Your task to perform on an android device: Open Yahoo.com Image 0: 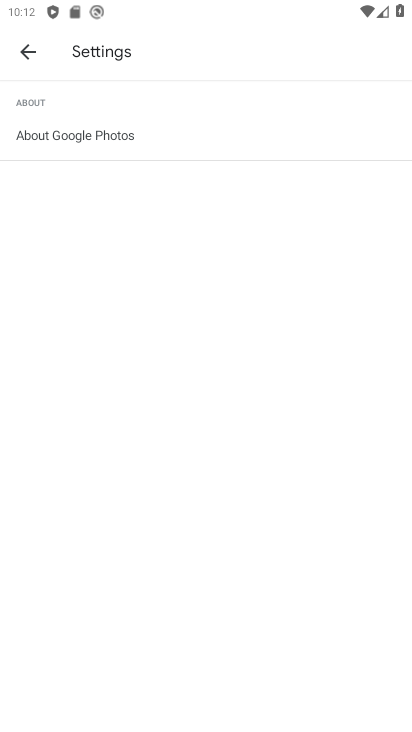
Step 0: press home button
Your task to perform on an android device: Open Yahoo.com Image 1: 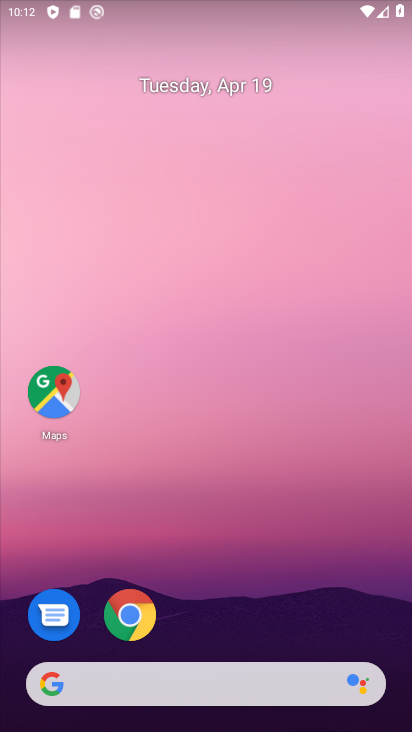
Step 1: click (124, 613)
Your task to perform on an android device: Open Yahoo.com Image 2: 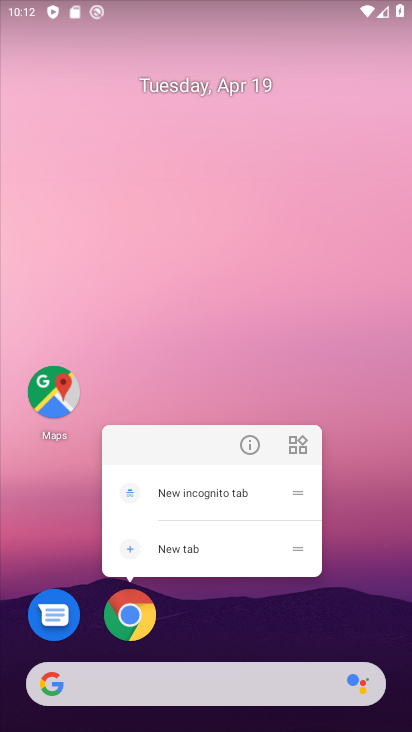
Step 2: click (134, 613)
Your task to perform on an android device: Open Yahoo.com Image 3: 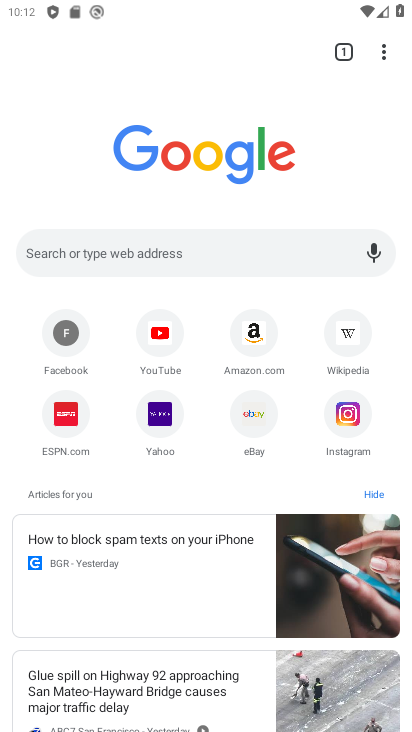
Step 3: click (158, 416)
Your task to perform on an android device: Open Yahoo.com Image 4: 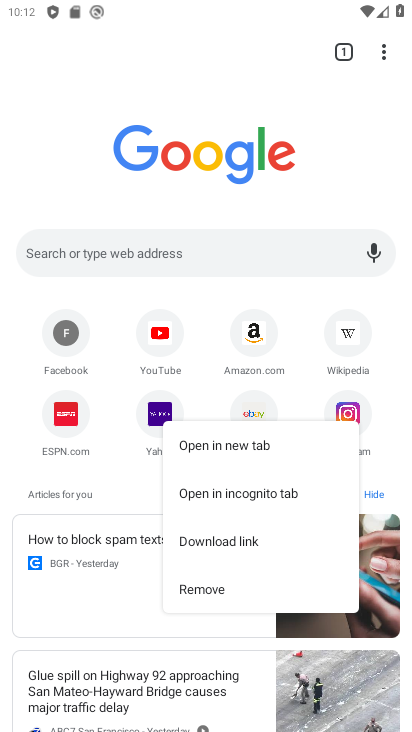
Step 4: click (153, 418)
Your task to perform on an android device: Open Yahoo.com Image 5: 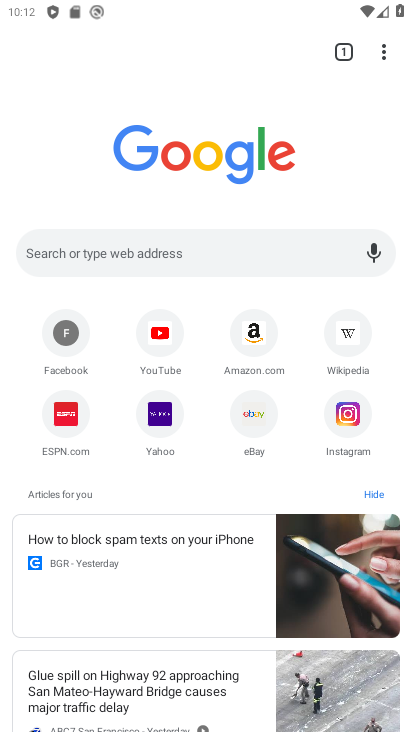
Step 5: click (161, 414)
Your task to perform on an android device: Open Yahoo.com Image 6: 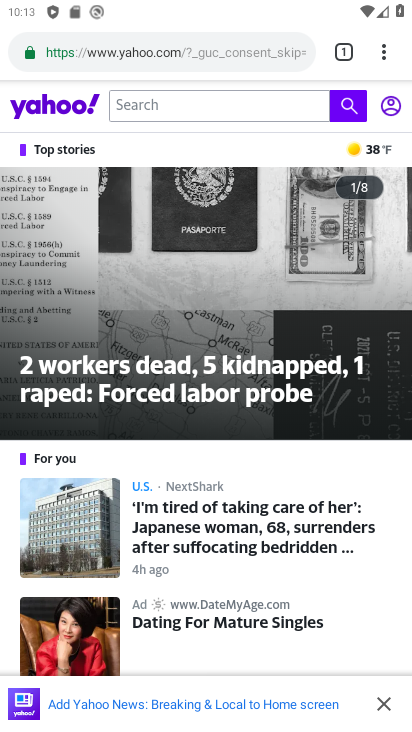
Step 6: task complete